Your task to perform on an android device: turn on airplane mode Image 0: 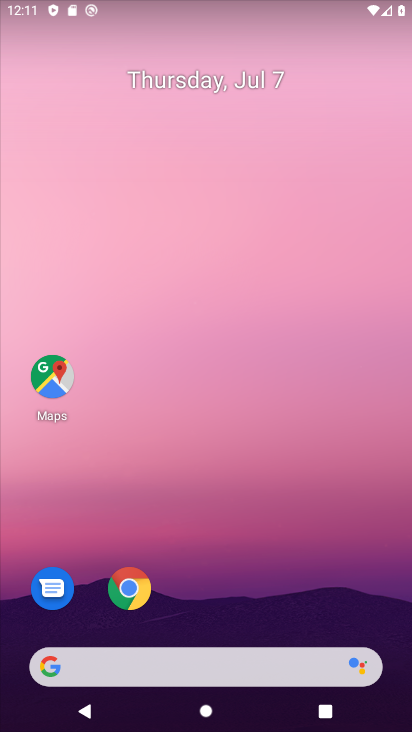
Step 0: drag from (193, 581) to (261, 32)
Your task to perform on an android device: turn on airplane mode Image 1: 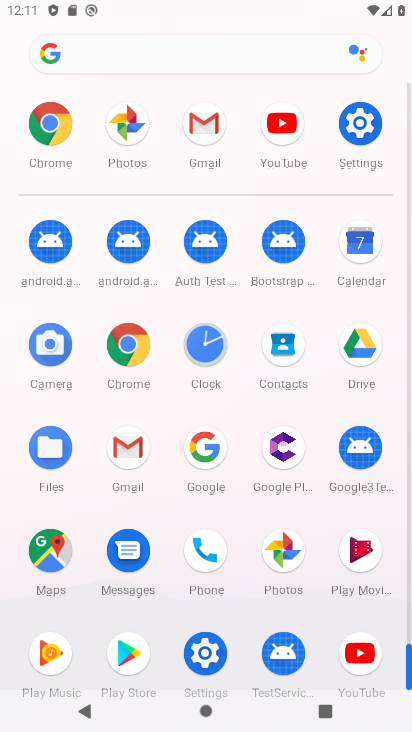
Step 1: click (369, 131)
Your task to perform on an android device: turn on airplane mode Image 2: 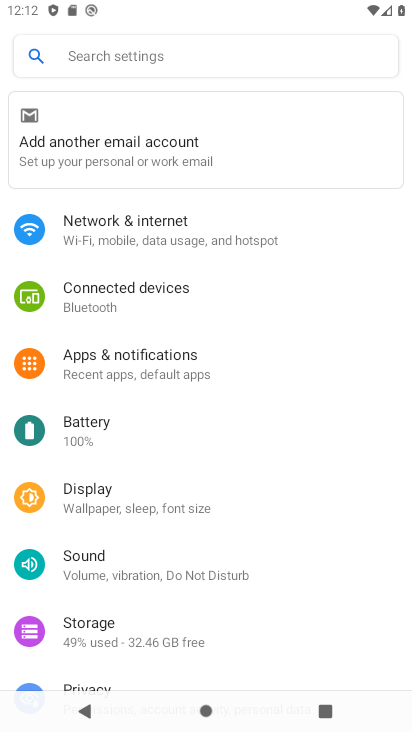
Step 2: click (190, 235)
Your task to perform on an android device: turn on airplane mode Image 3: 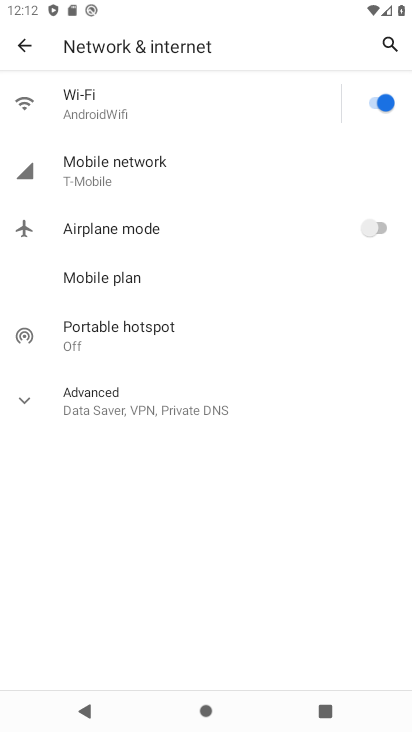
Step 3: click (248, 240)
Your task to perform on an android device: turn on airplane mode Image 4: 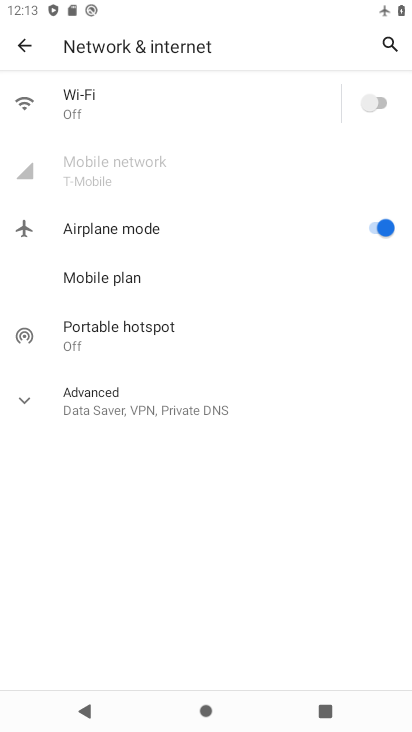
Step 4: task complete